Your task to perform on an android device: What's the weather today? Image 0: 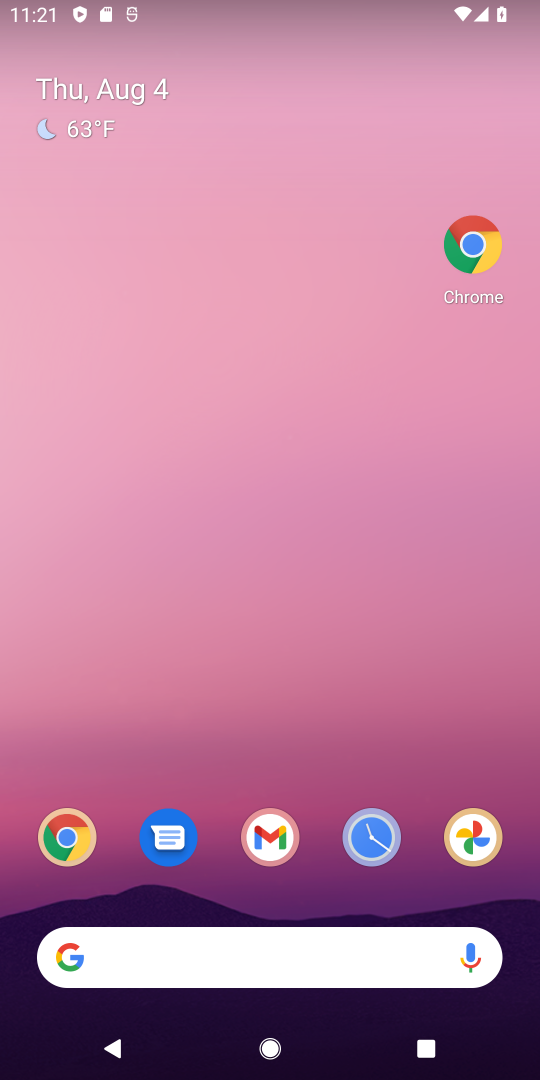
Step 0: press home button
Your task to perform on an android device: What's the weather today? Image 1: 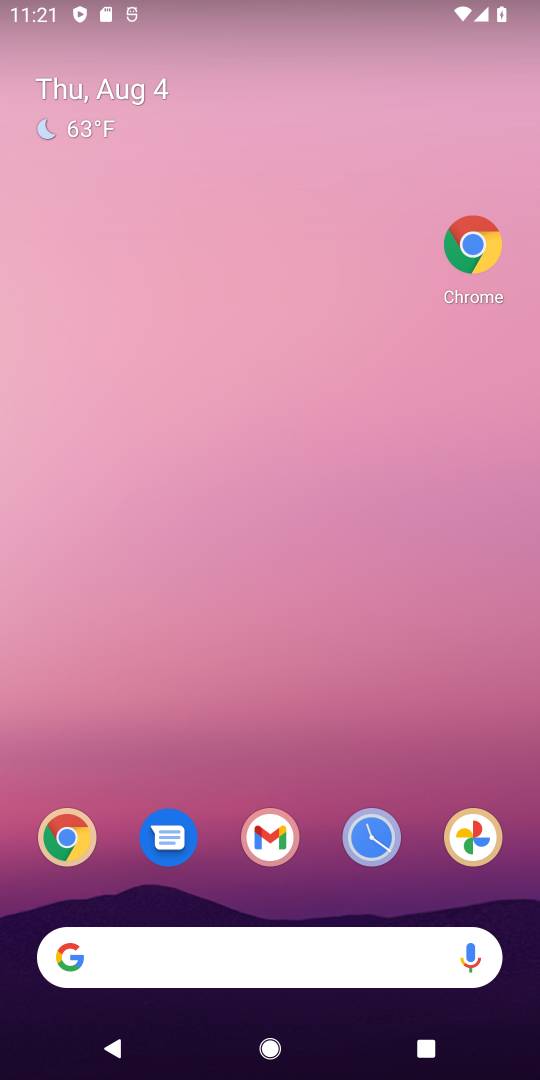
Step 1: click (81, 120)
Your task to perform on an android device: What's the weather today? Image 2: 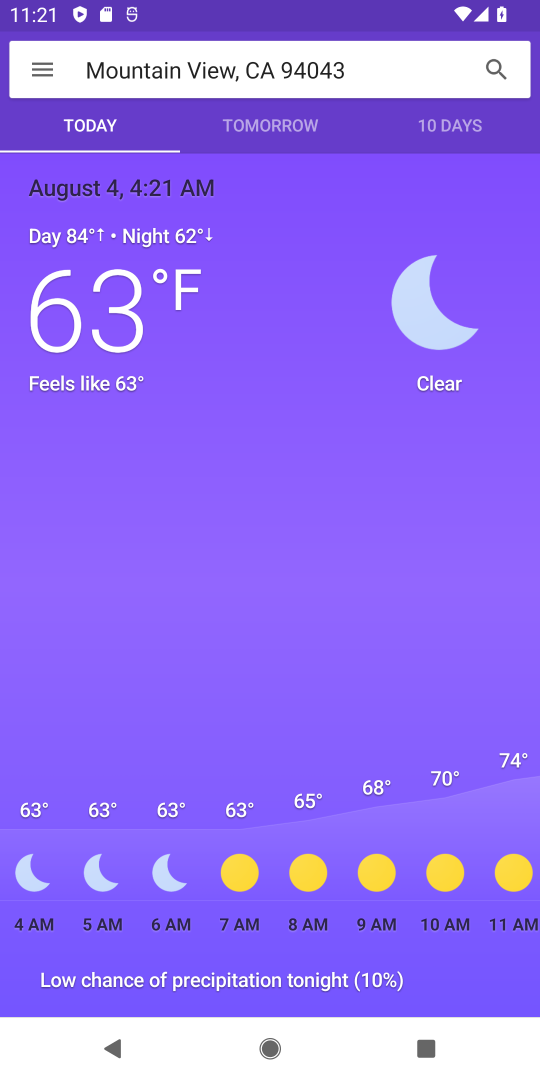
Step 2: drag from (511, 872) to (13, 915)
Your task to perform on an android device: What's the weather today? Image 3: 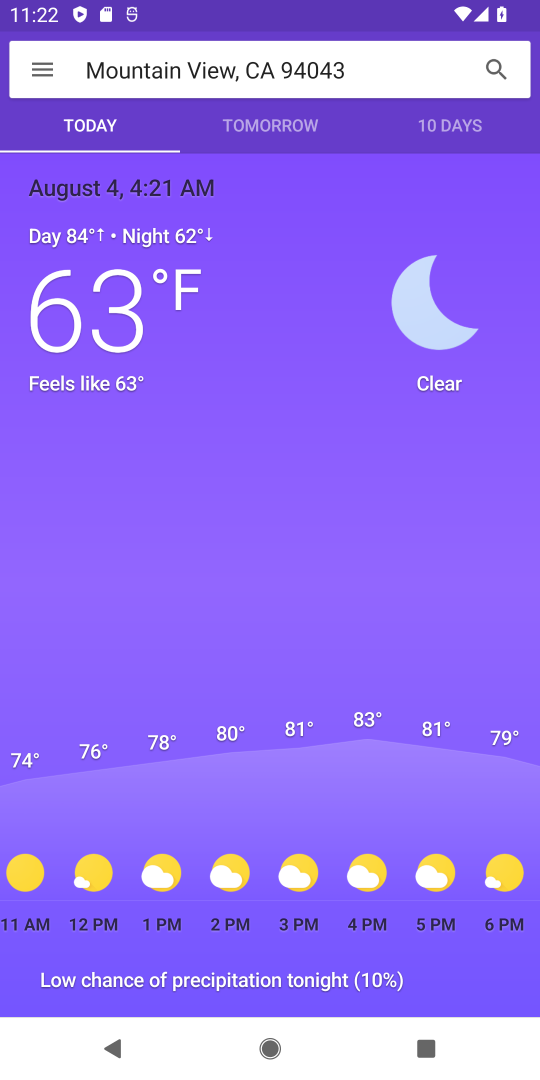
Step 3: drag from (498, 873) to (0, 912)
Your task to perform on an android device: What's the weather today? Image 4: 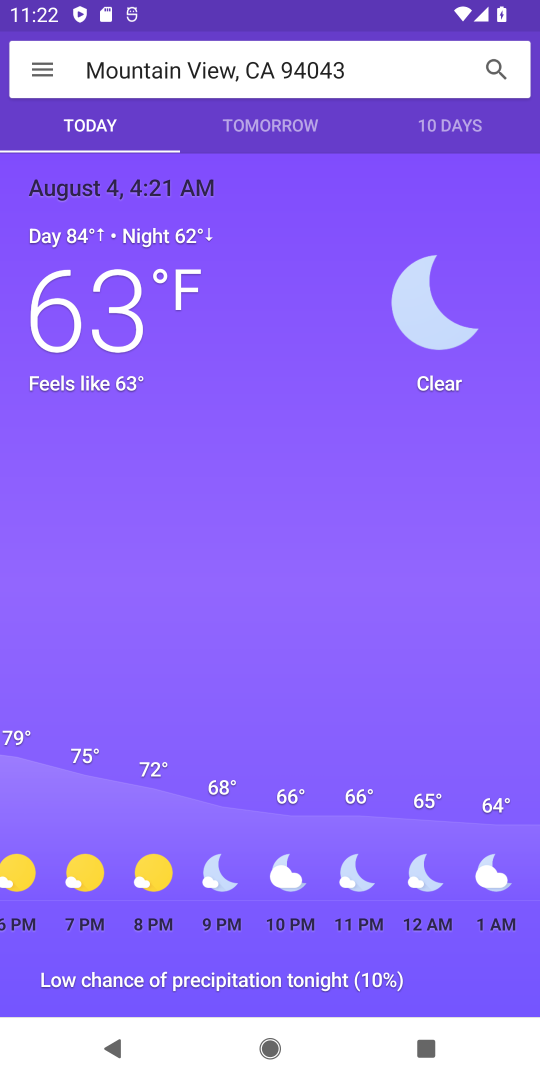
Step 4: drag from (492, 877) to (54, 892)
Your task to perform on an android device: What's the weather today? Image 5: 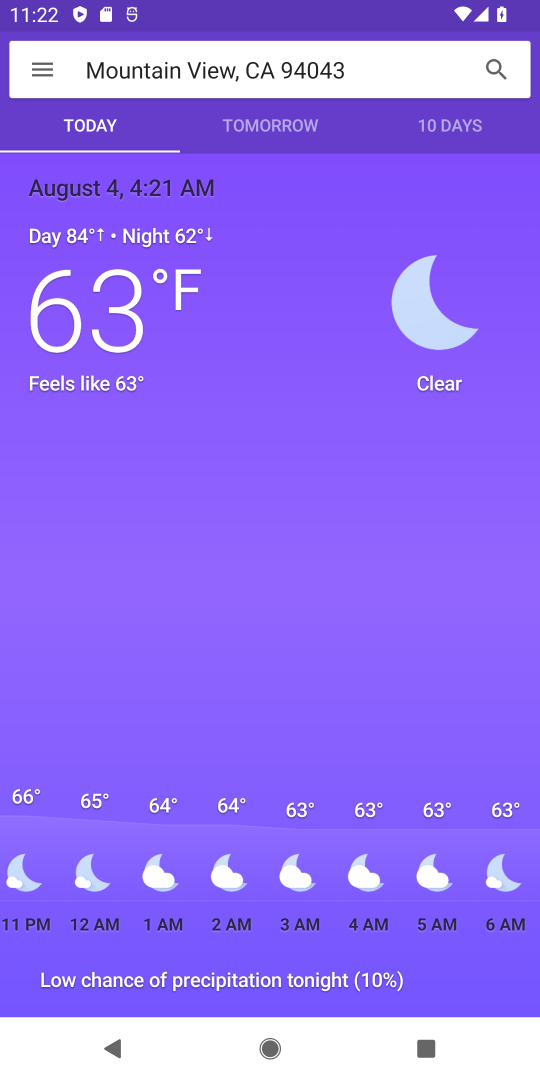
Step 5: drag from (504, 876) to (118, 887)
Your task to perform on an android device: What's the weather today? Image 6: 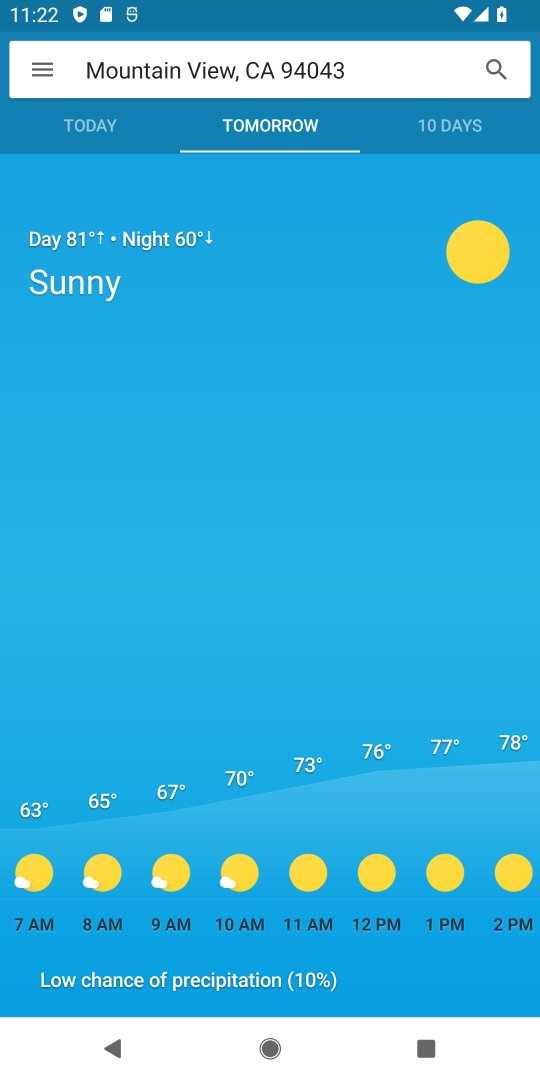
Step 6: click (104, 124)
Your task to perform on an android device: What's the weather today? Image 7: 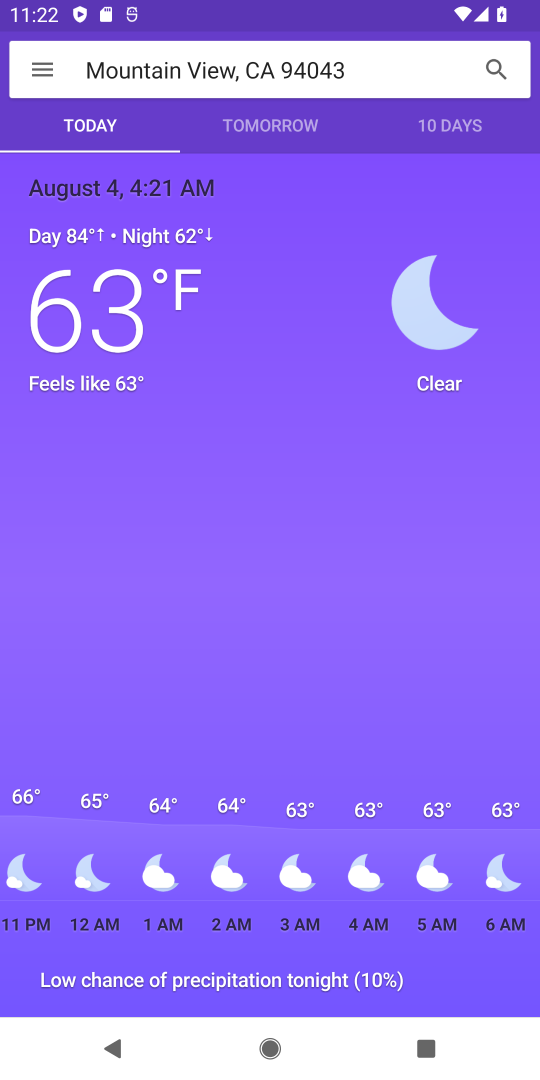
Step 7: task complete